Your task to perform on an android device: Open Android settings Image 0: 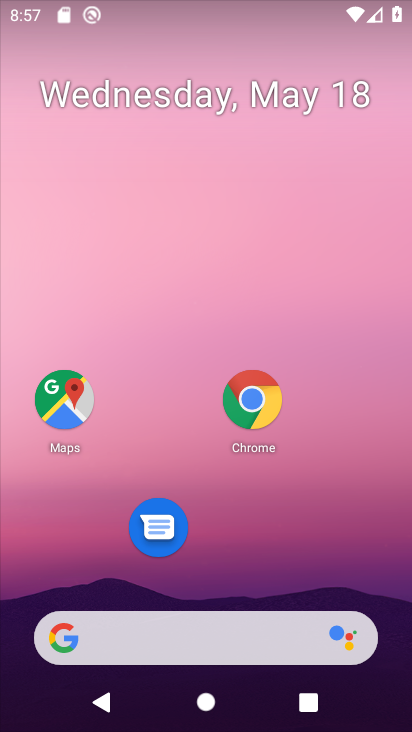
Step 0: drag from (222, 425) to (187, 19)
Your task to perform on an android device: Open Android settings Image 1: 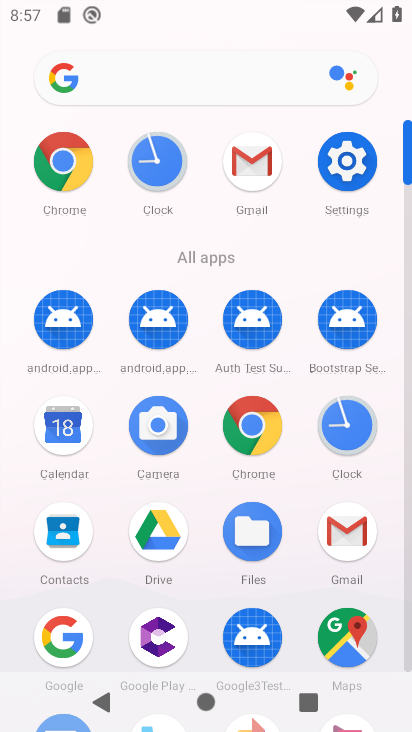
Step 1: click (179, 50)
Your task to perform on an android device: Open Android settings Image 2: 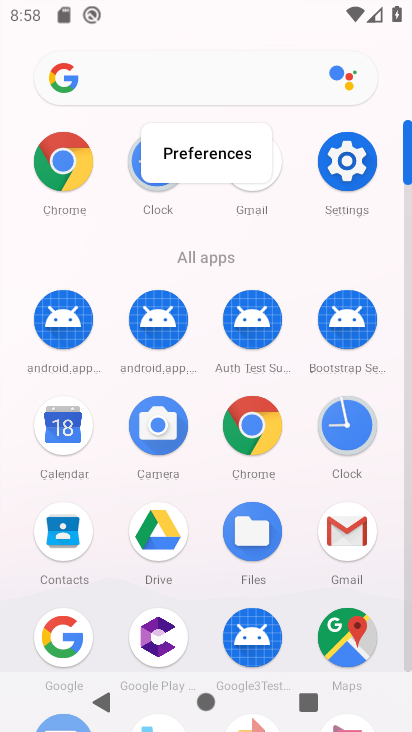
Step 2: click (252, 88)
Your task to perform on an android device: Open Android settings Image 3: 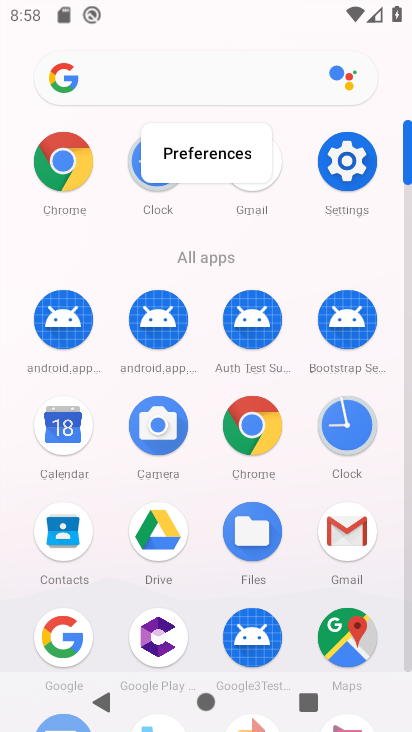
Step 3: click (352, 164)
Your task to perform on an android device: Open Android settings Image 4: 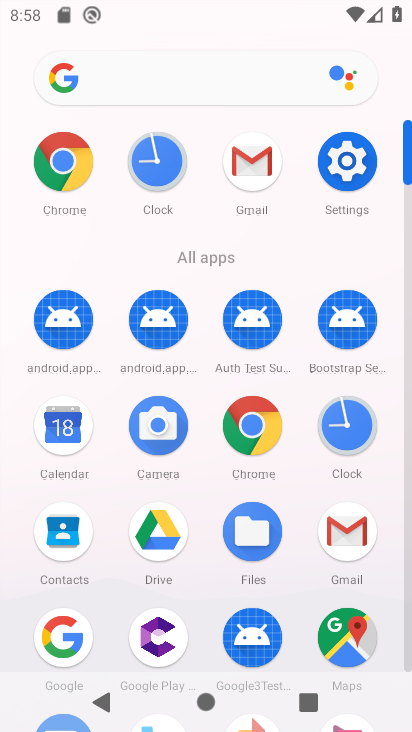
Step 4: click (344, 168)
Your task to perform on an android device: Open Android settings Image 5: 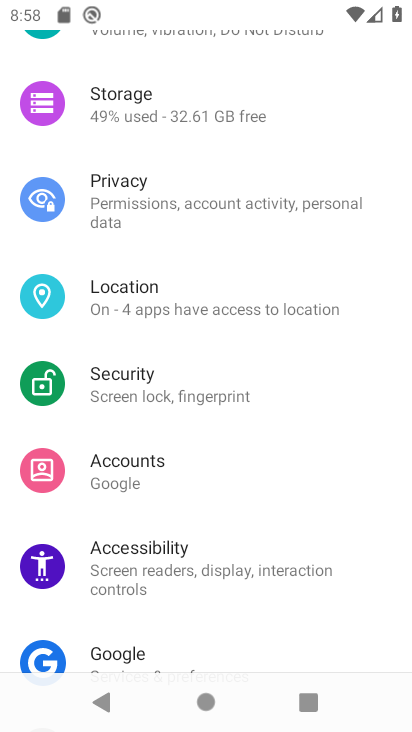
Step 5: drag from (164, 628) to (127, 4)
Your task to perform on an android device: Open Android settings Image 6: 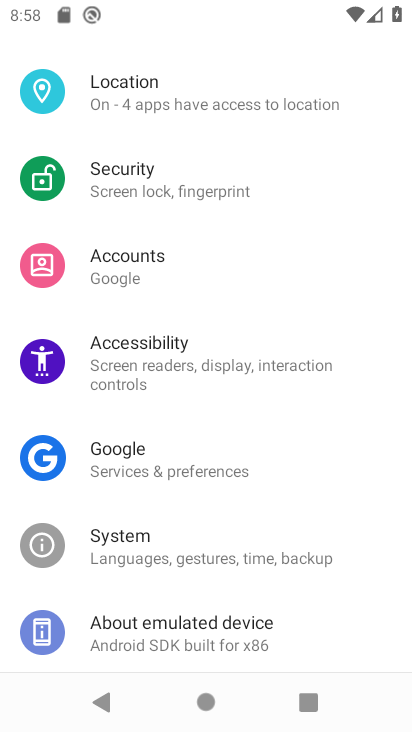
Step 6: click (178, 626)
Your task to perform on an android device: Open Android settings Image 7: 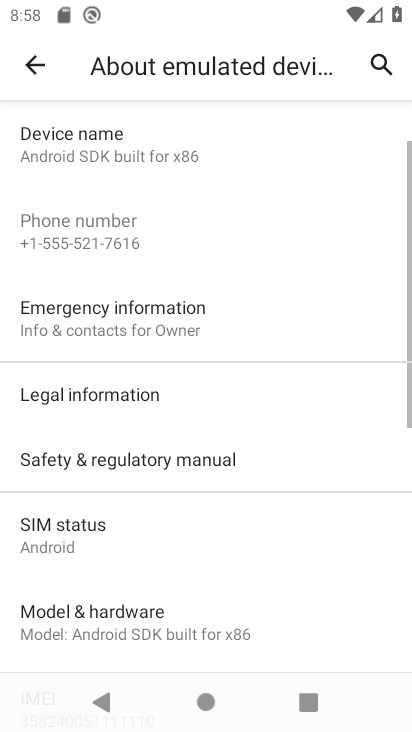
Step 7: drag from (181, 601) to (178, 107)
Your task to perform on an android device: Open Android settings Image 8: 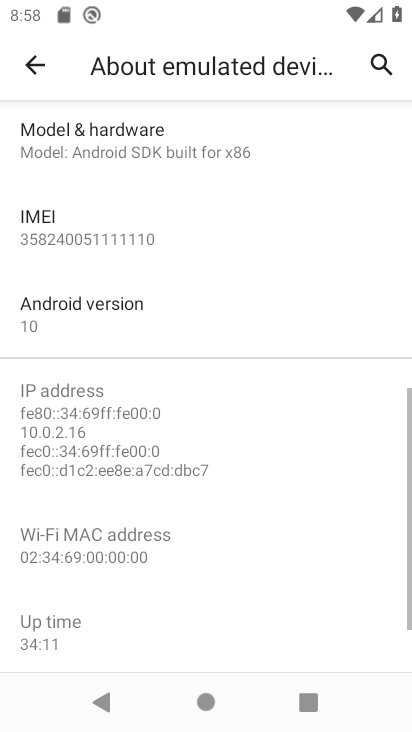
Step 8: click (71, 339)
Your task to perform on an android device: Open Android settings Image 9: 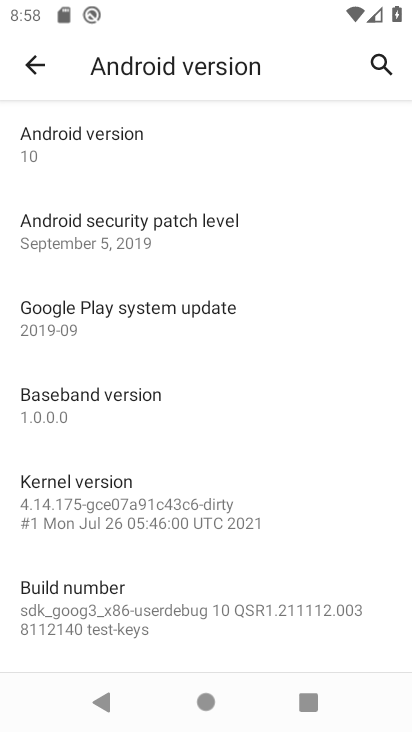
Step 9: click (55, 321)
Your task to perform on an android device: Open Android settings Image 10: 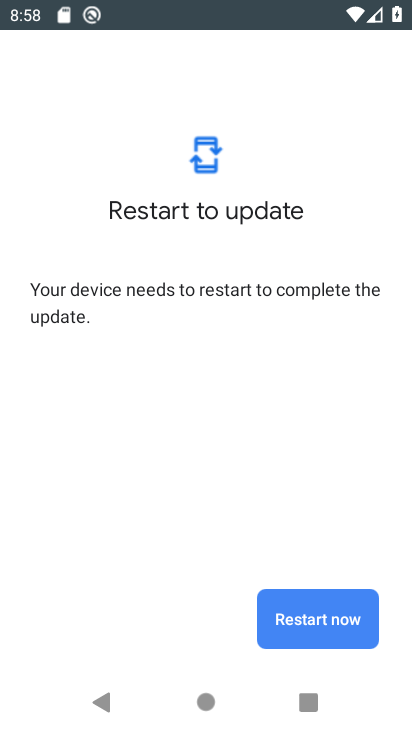
Step 10: task complete